Your task to perform on an android device: Go to ESPN.com Image 0: 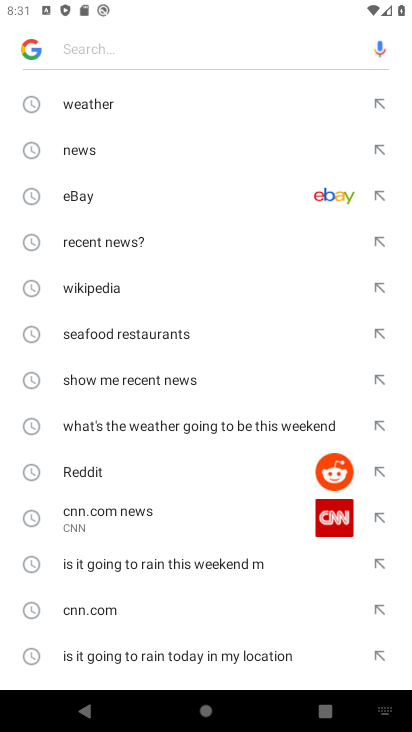
Step 0: press home button
Your task to perform on an android device: Go to ESPN.com Image 1: 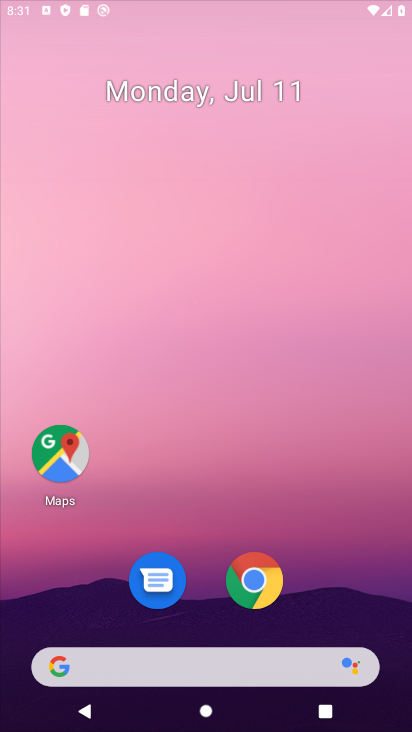
Step 1: drag from (377, 591) to (306, 53)
Your task to perform on an android device: Go to ESPN.com Image 2: 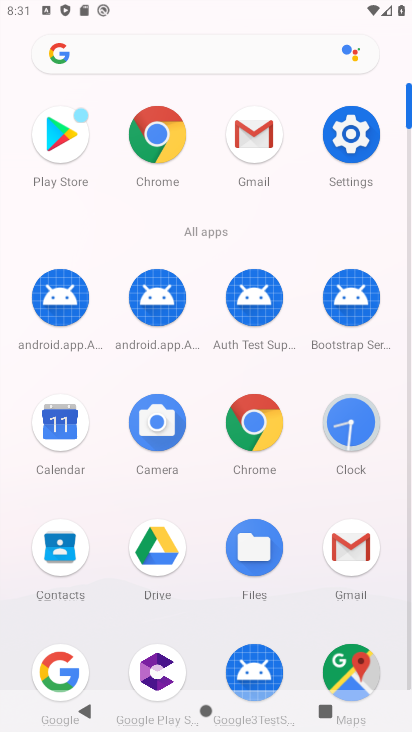
Step 2: click (50, 648)
Your task to perform on an android device: Go to ESPN.com Image 3: 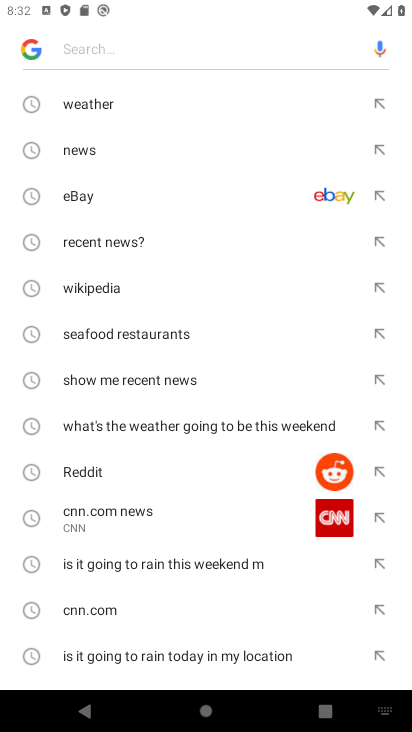
Step 3: drag from (143, 581) to (117, 99)
Your task to perform on an android device: Go to ESPN.com Image 4: 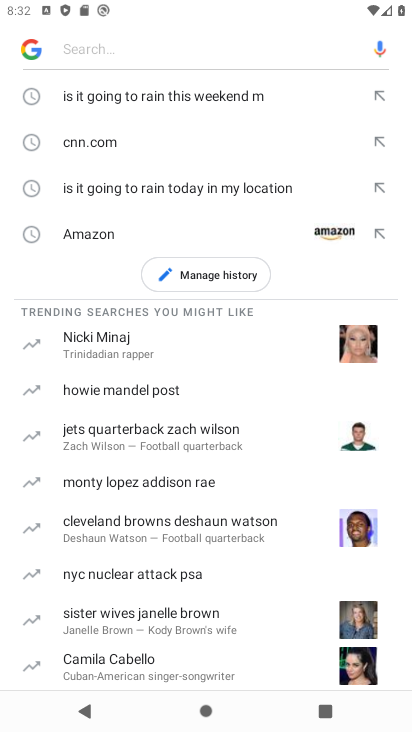
Step 4: drag from (118, 97) to (87, 705)
Your task to perform on an android device: Go to ESPN.com Image 5: 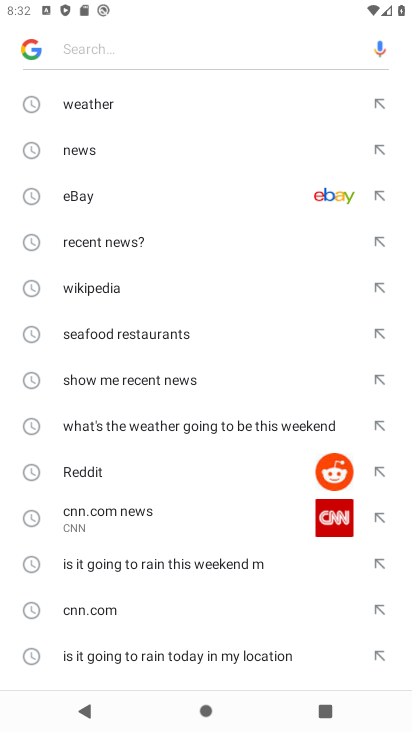
Step 5: type "espn.com"
Your task to perform on an android device: Go to ESPN.com Image 6: 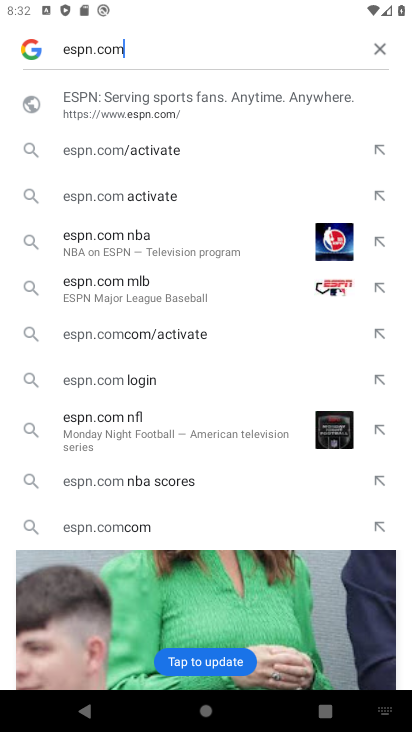
Step 6: click (141, 107)
Your task to perform on an android device: Go to ESPN.com Image 7: 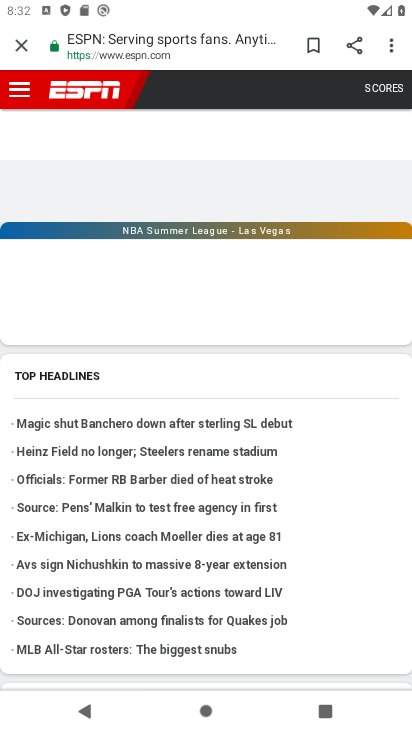
Step 7: task complete